Your task to perform on an android device: View the shopping cart on amazon. Search for panasonic triple a on amazon, select the first entry, add it to the cart, then select checkout. Image 0: 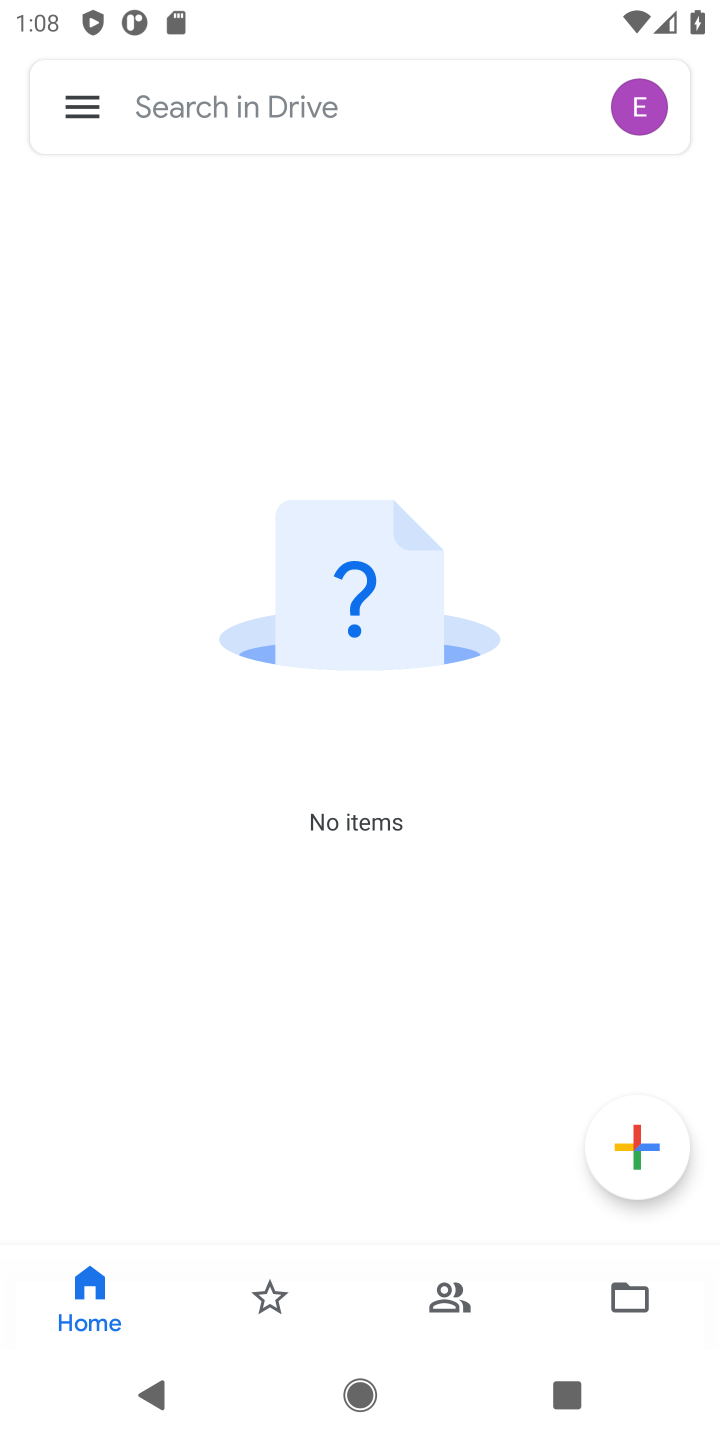
Step 0: press home button
Your task to perform on an android device: View the shopping cart on amazon. Search for panasonic triple a on amazon, select the first entry, add it to the cart, then select checkout. Image 1: 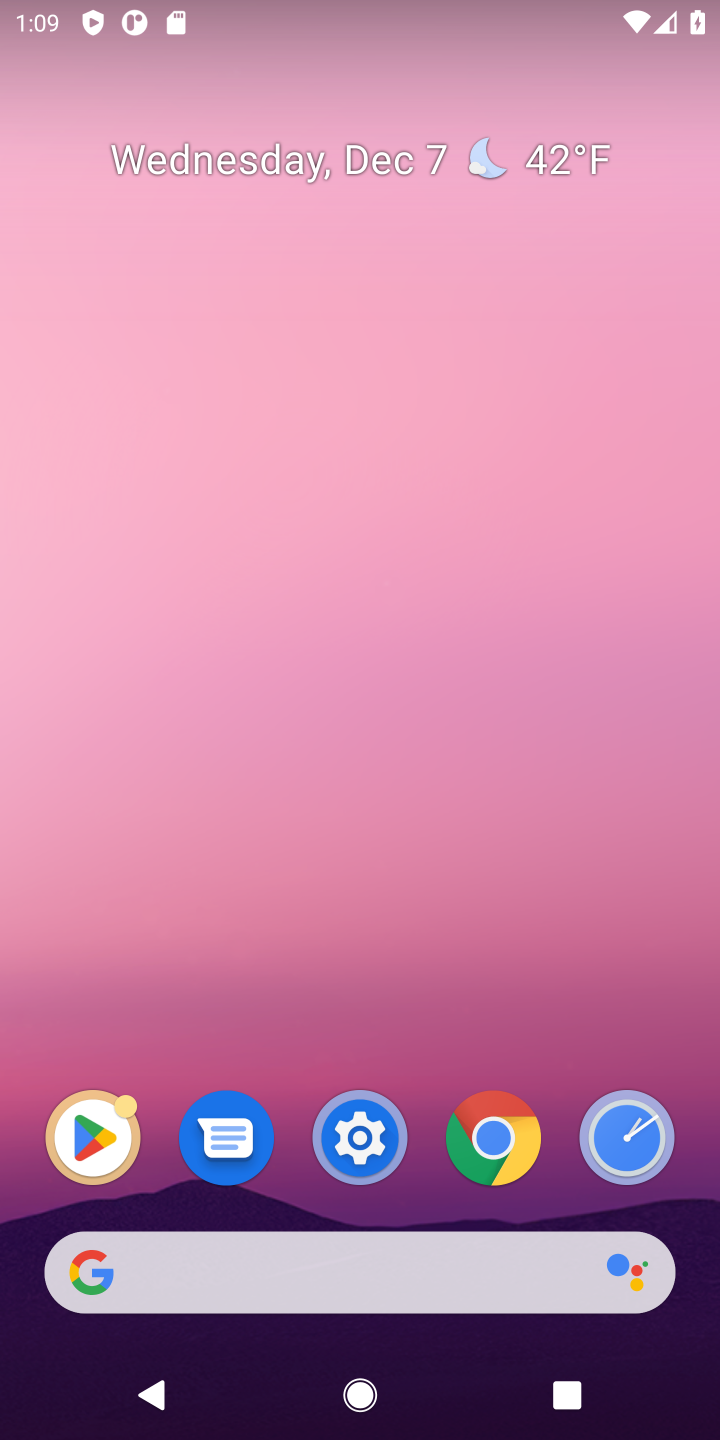
Step 1: click (471, 1269)
Your task to perform on an android device: View the shopping cart on amazon. Search for panasonic triple a on amazon, select the first entry, add it to the cart, then select checkout. Image 2: 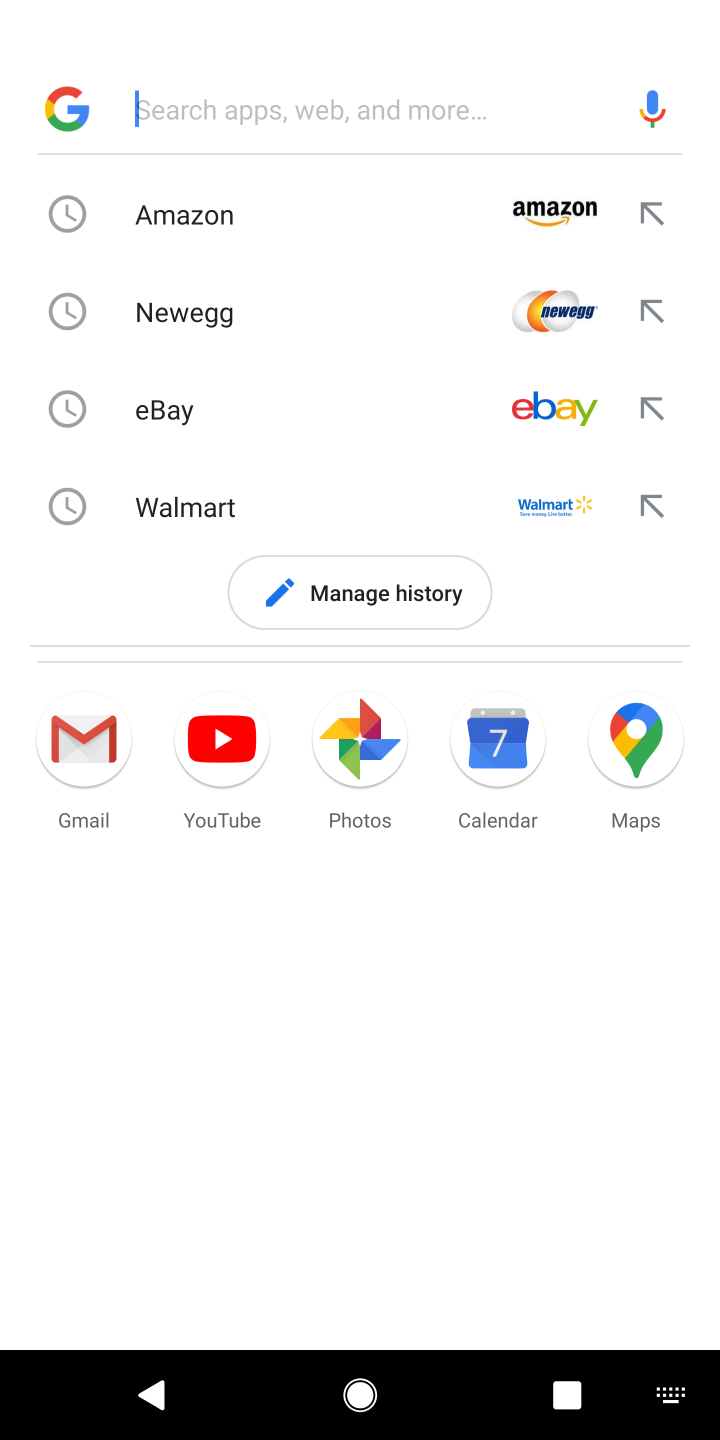
Step 2: click (219, 230)
Your task to perform on an android device: View the shopping cart on amazon. Search for panasonic triple a on amazon, select the first entry, add it to the cart, then select checkout. Image 3: 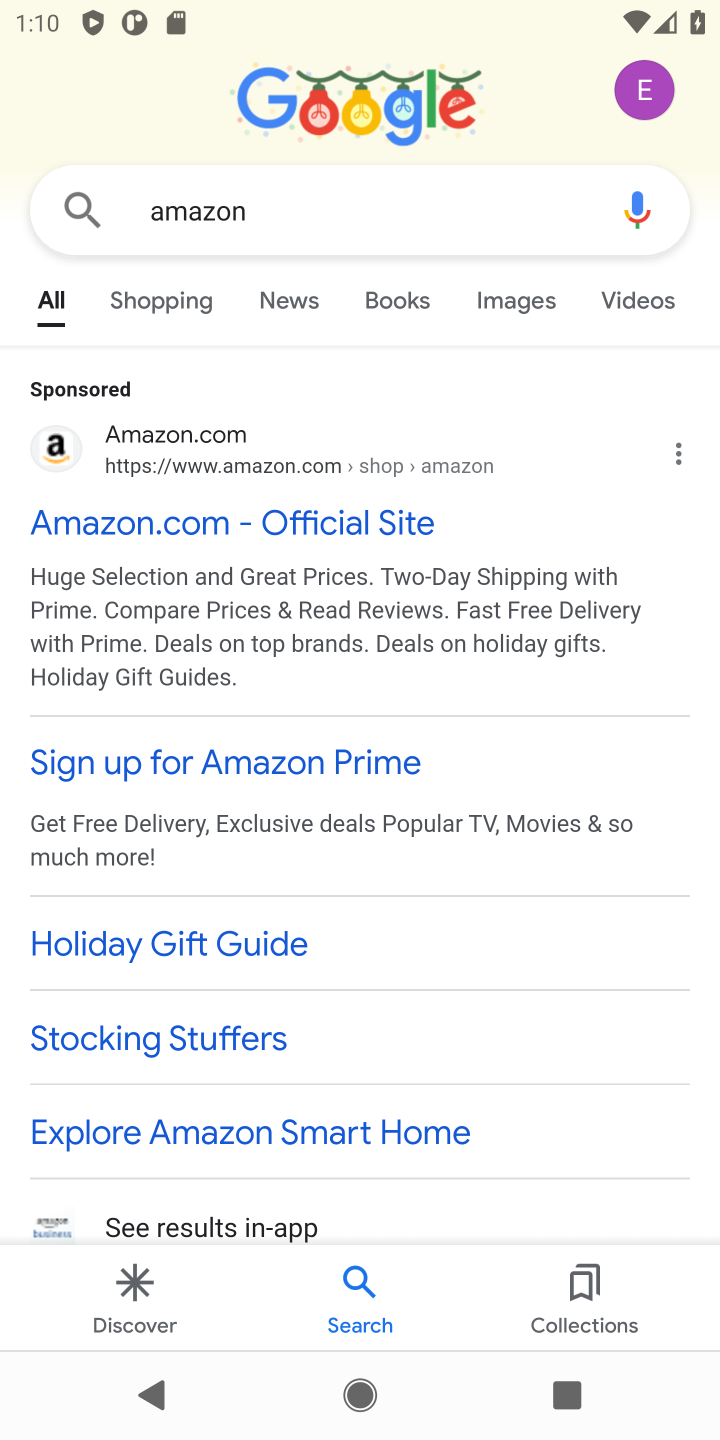
Step 3: click (178, 502)
Your task to perform on an android device: View the shopping cart on amazon. Search for panasonic triple a on amazon, select the first entry, add it to the cart, then select checkout. Image 4: 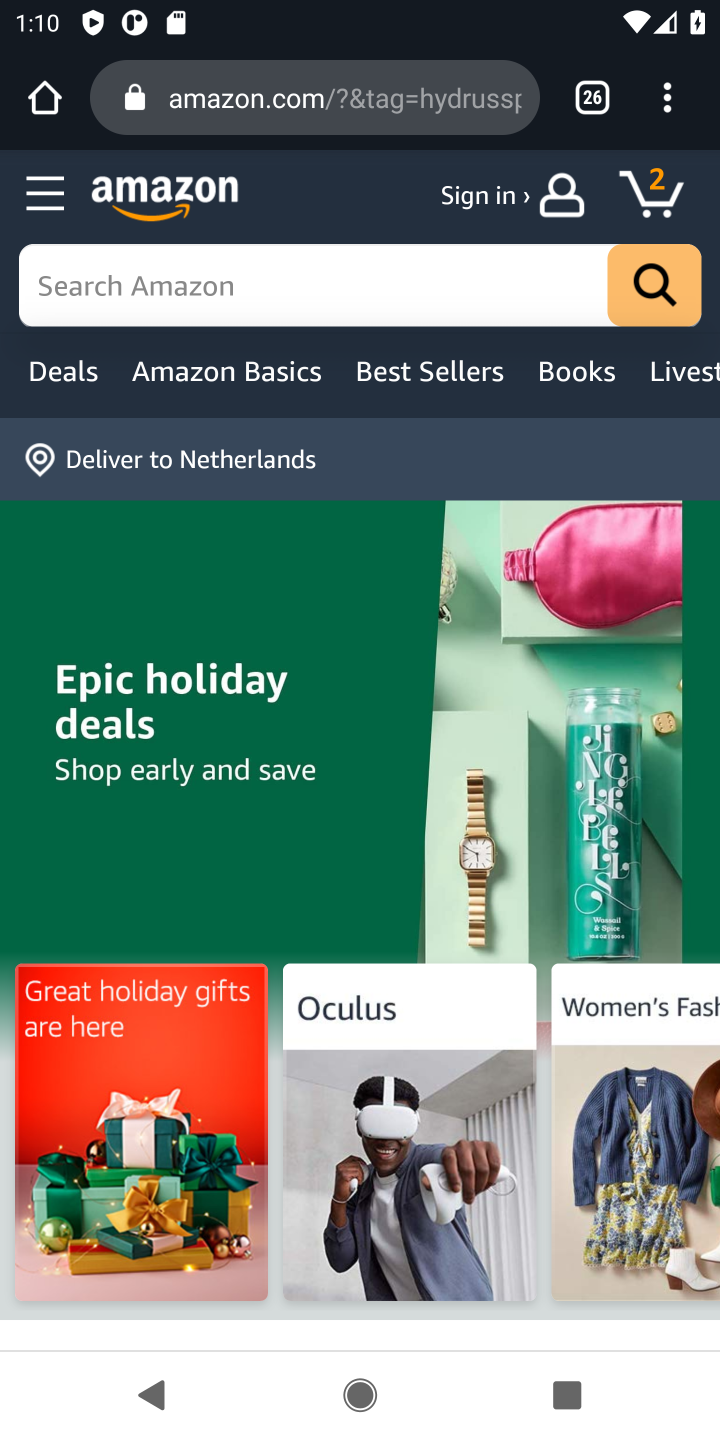
Step 4: click (375, 312)
Your task to perform on an android device: View the shopping cart on amazon. Search for panasonic triple a on amazon, select the first entry, add it to the cart, then select checkout. Image 5: 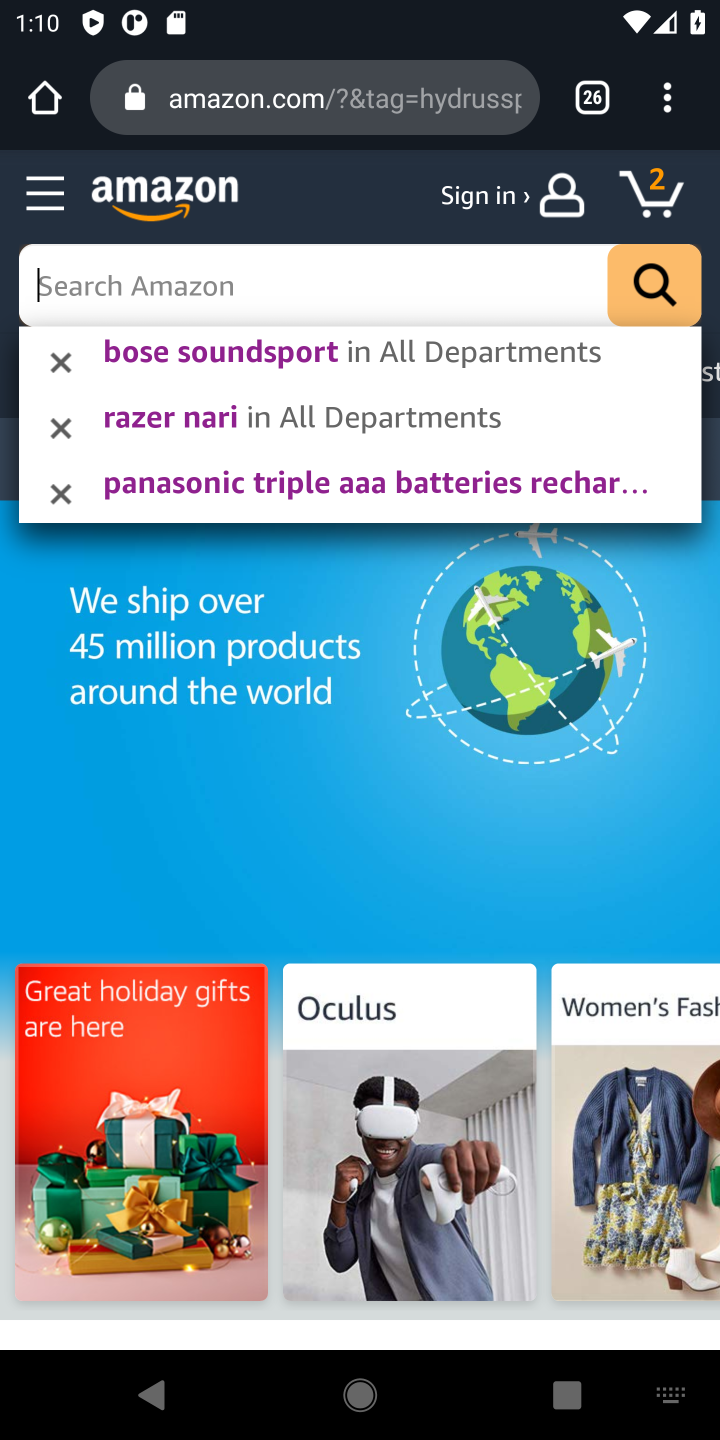
Step 5: type "pansonic triple a"
Your task to perform on an android device: View the shopping cart on amazon. Search for panasonic triple a on amazon, select the first entry, add it to the cart, then select checkout. Image 6: 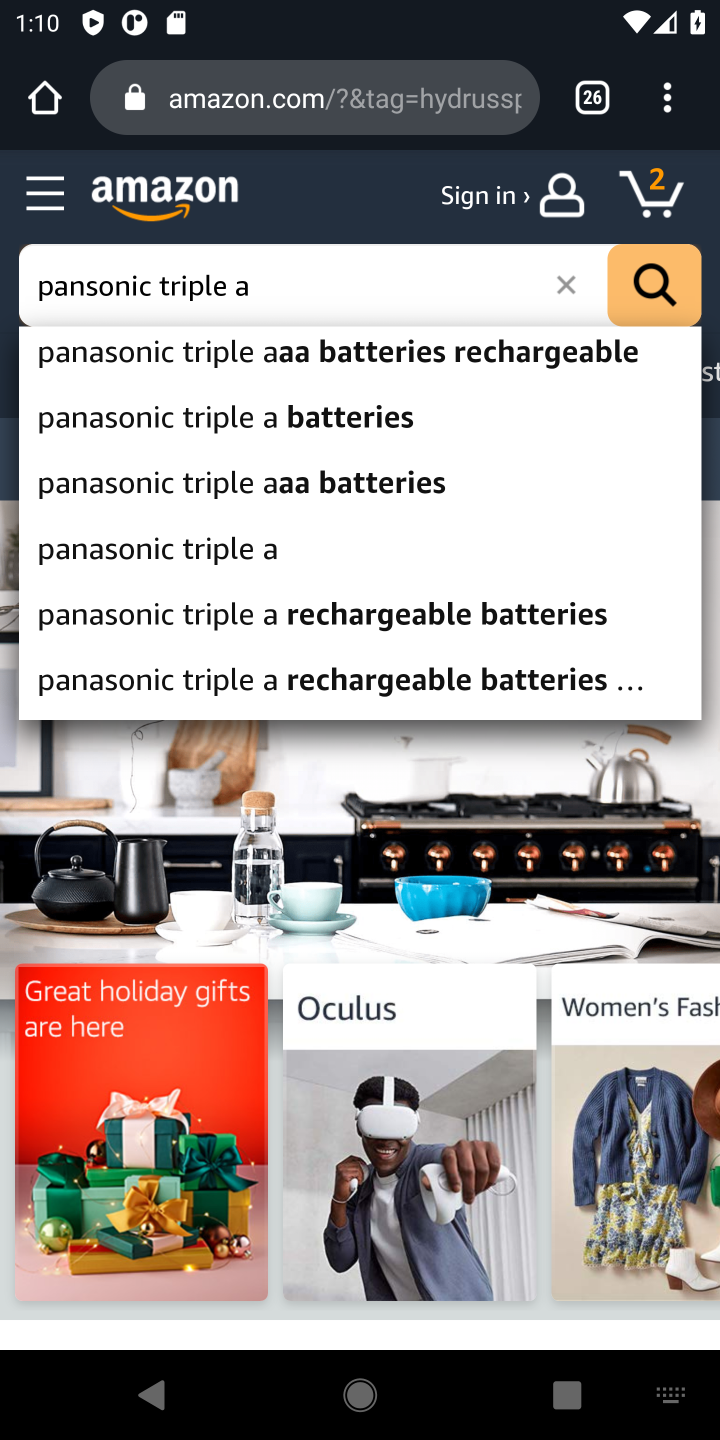
Step 6: click (670, 299)
Your task to perform on an android device: View the shopping cart on amazon. Search for panasonic triple a on amazon, select the first entry, add it to the cart, then select checkout. Image 7: 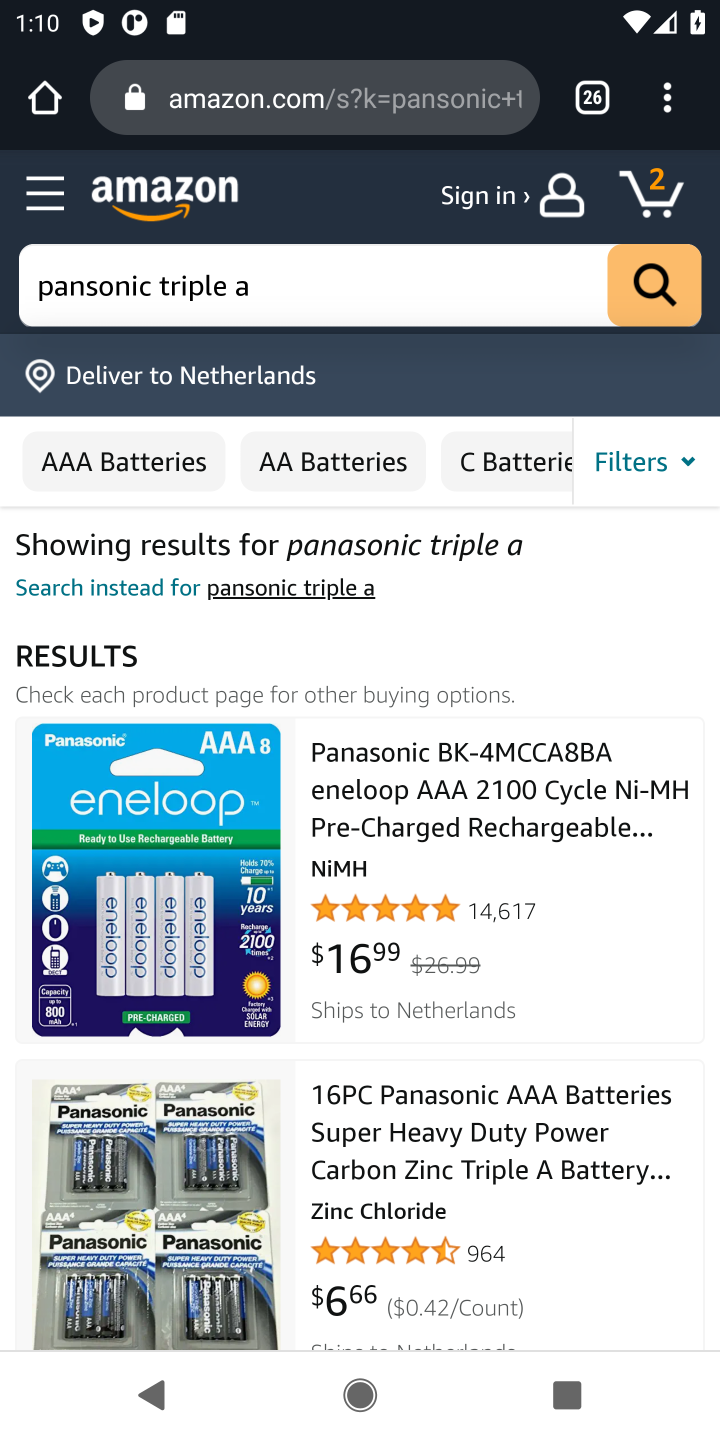
Step 7: click (452, 824)
Your task to perform on an android device: View the shopping cart on amazon. Search for panasonic triple a on amazon, select the first entry, add it to the cart, then select checkout. Image 8: 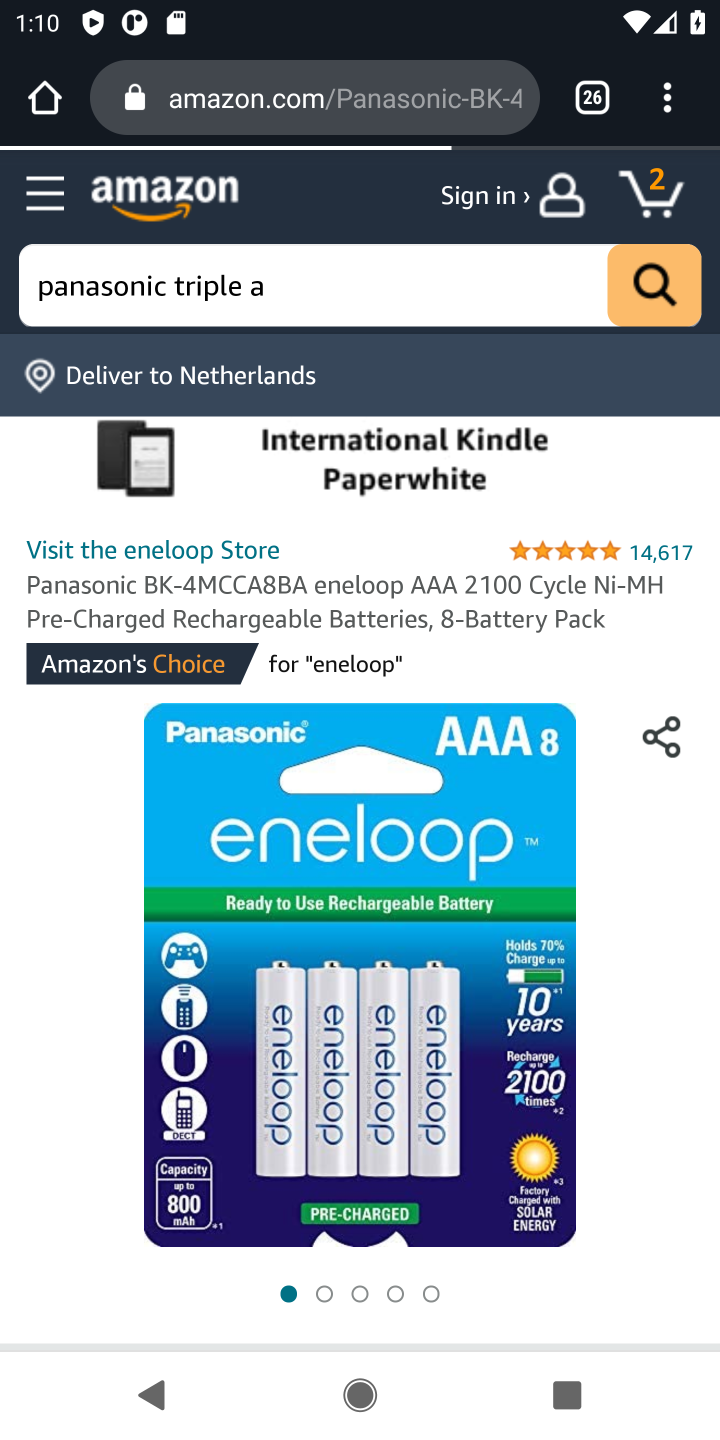
Step 8: drag from (280, 1112) to (515, 324)
Your task to perform on an android device: View the shopping cart on amazon. Search for panasonic triple a on amazon, select the first entry, add it to the cart, then select checkout. Image 9: 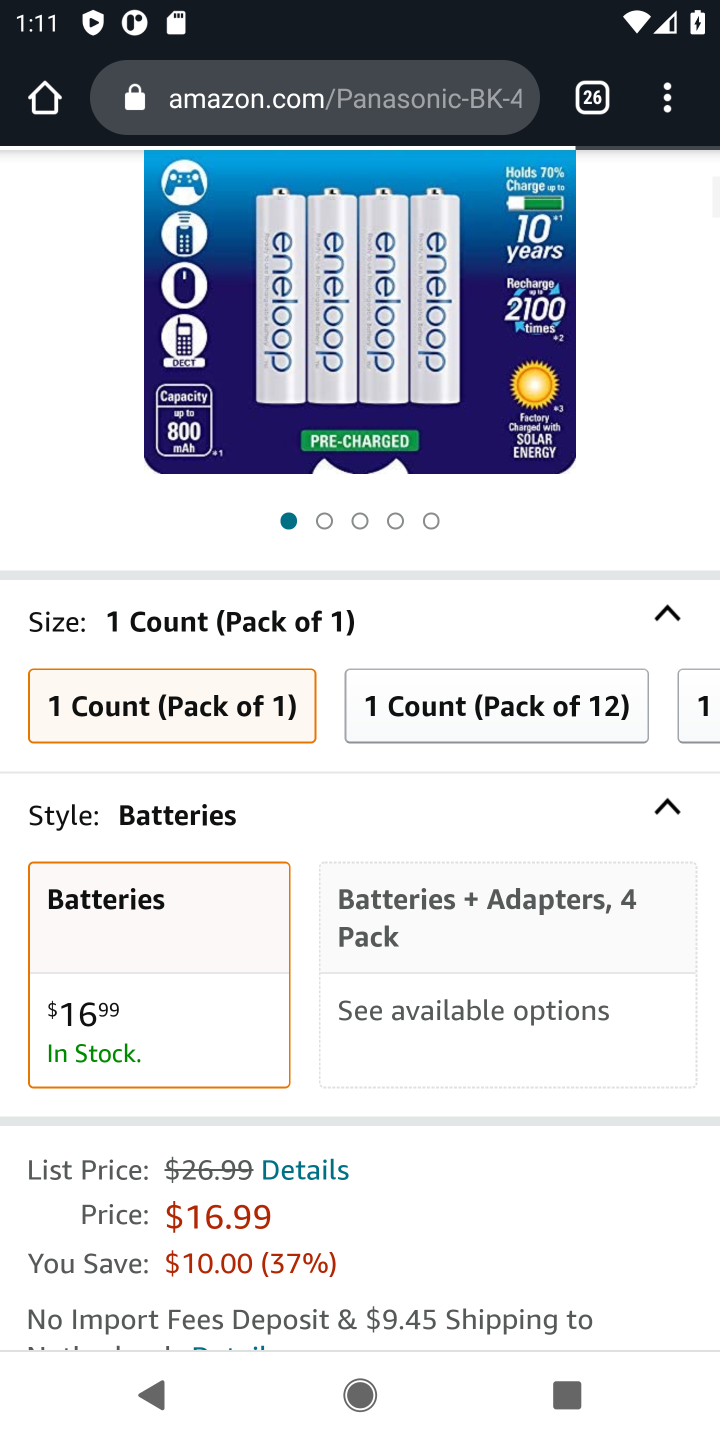
Step 9: drag from (410, 1226) to (374, 254)
Your task to perform on an android device: View the shopping cart on amazon. Search for panasonic triple a on amazon, select the first entry, add it to the cart, then select checkout. Image 10: 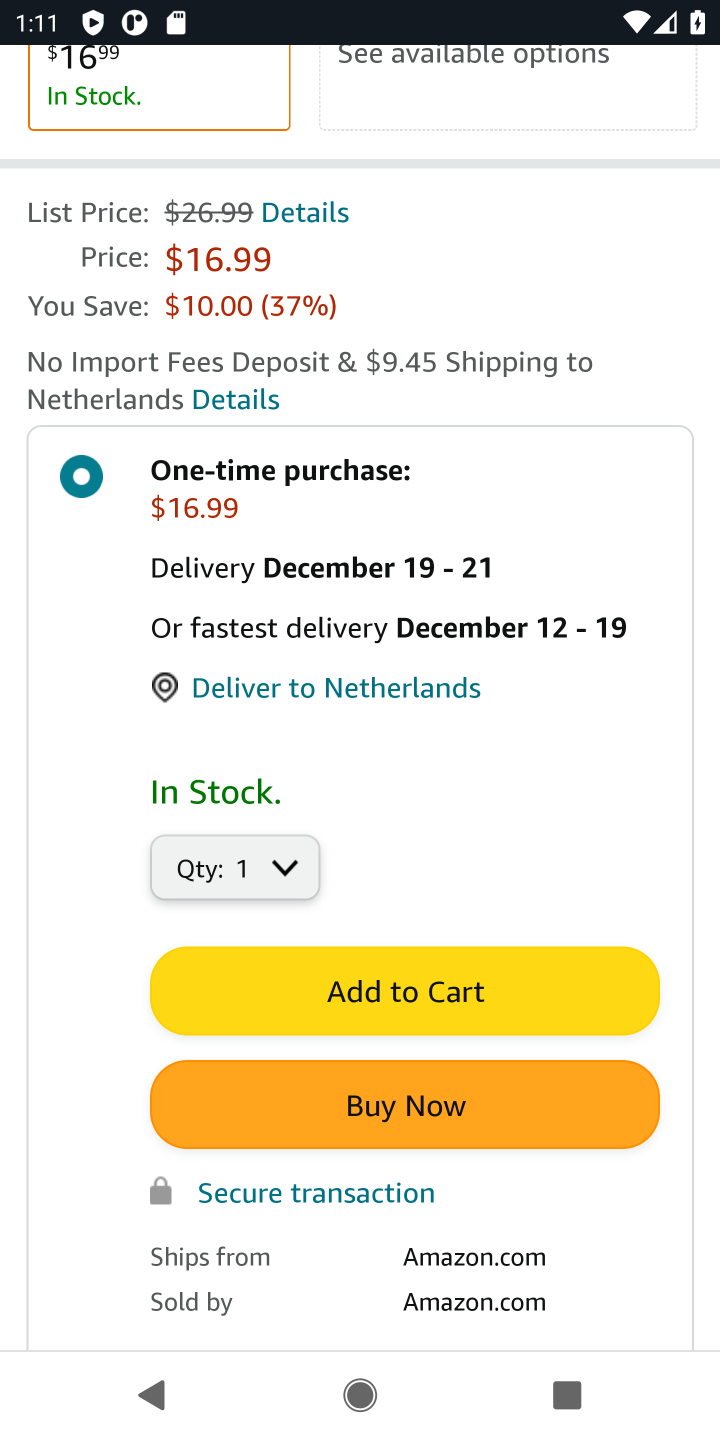
Step 10: click (425, 982)
Your task to perform on an android device: View the shopping cart on amazon. Search for panasonic triple a on amazon, select the first entry, add it to the cart, then select checkout. Image 11: 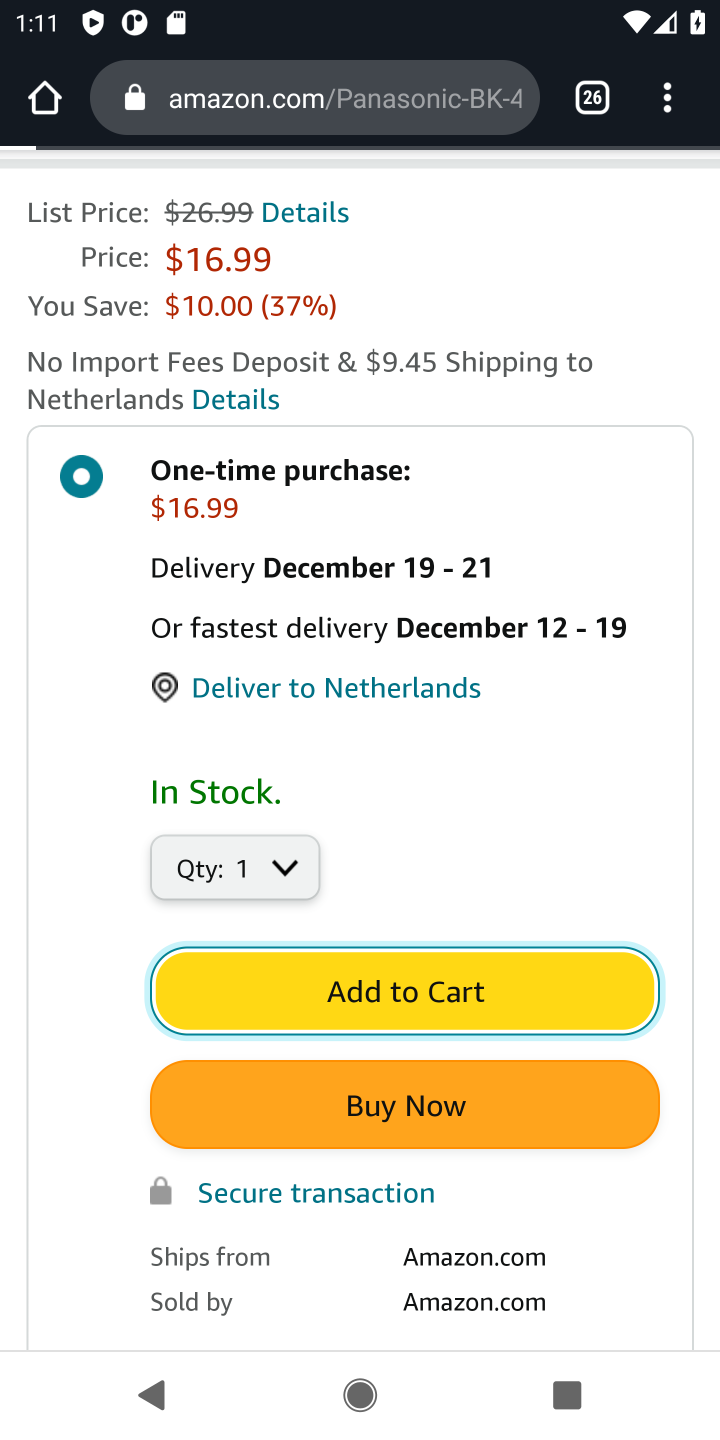
Step 11: task complete